Your task to perform on an android device: turn off data saver in the chrome app Image 0: 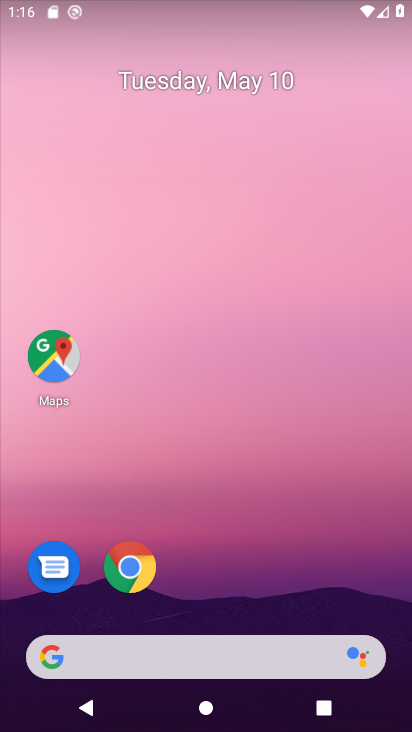
Step 0: drag from (192, 627) to (301, 143)
Your task to perform on an android device: turn off data saver in the chrome app Image 1: 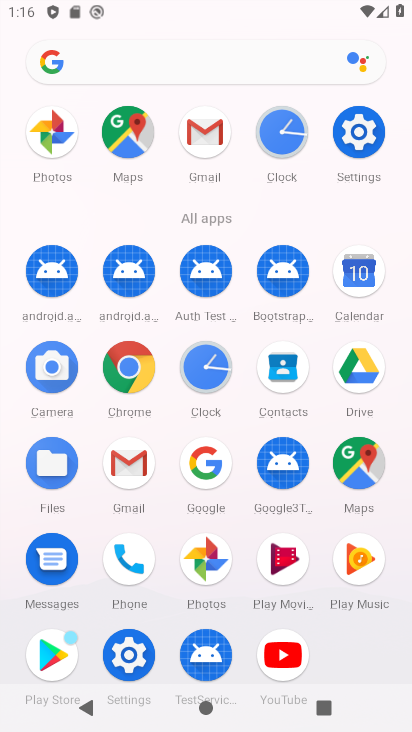
Step 1: click (123, 362)
Your task to perform on an android device: turn off data saver in the chrome app Image 2: 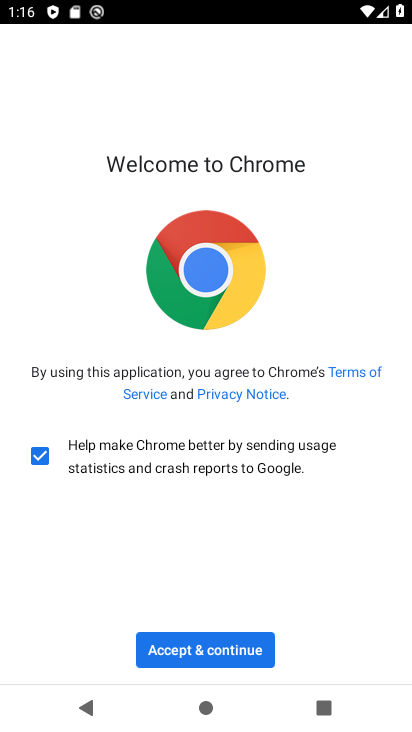
Step 2: click (232, 648)
Your task to perform on an android device: turn off data saver in the chrome app Image 3: 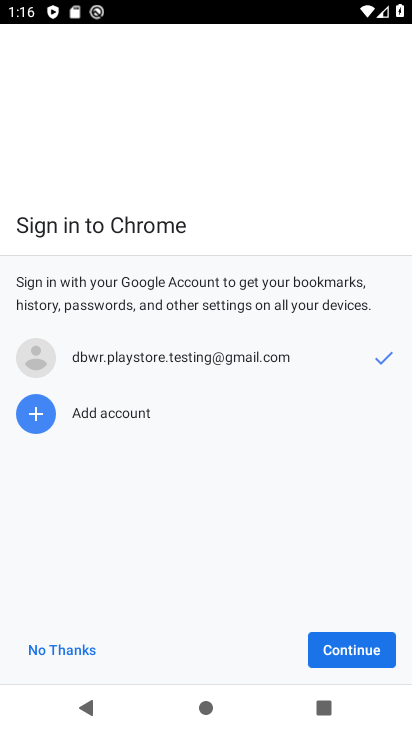
Step 3: click (346, 647)
Your task to perform on an android device: turn off data saver in the chrome app Image 4: 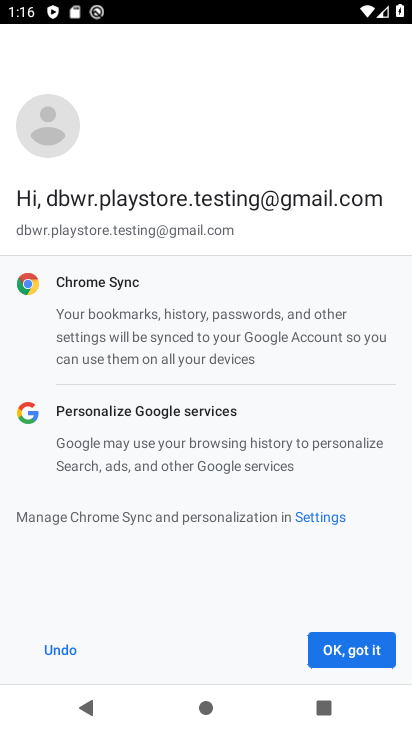
Step 4: click (381, 647)
Your task to perform on an android device: turn off data saver in the chrome app Image 5: 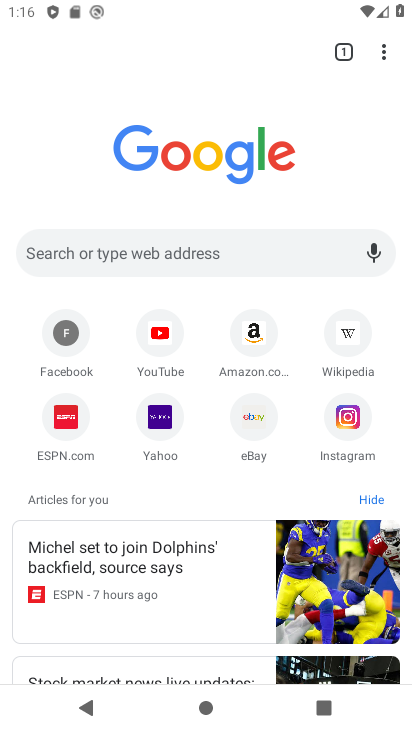
Step 5: drag from (402, 62) to (294, 441)
Your task to perform on an android device: turn off data saver in the chrome app Image 6: 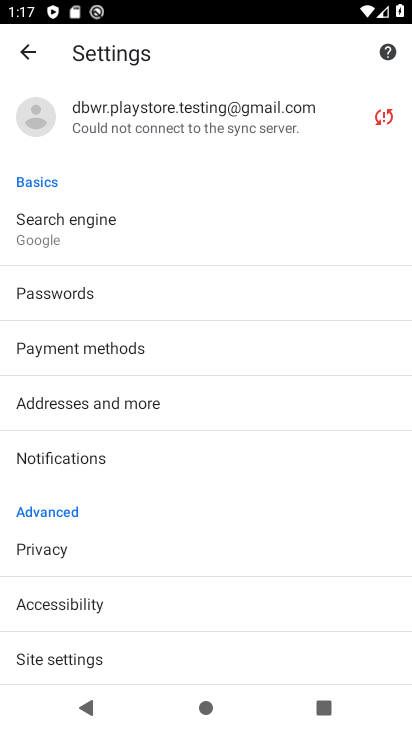
Step 6: drag from (124, 667) to (195, 375)
Your task to perform on an android device: turn off data saver in the chrome app Image 7: 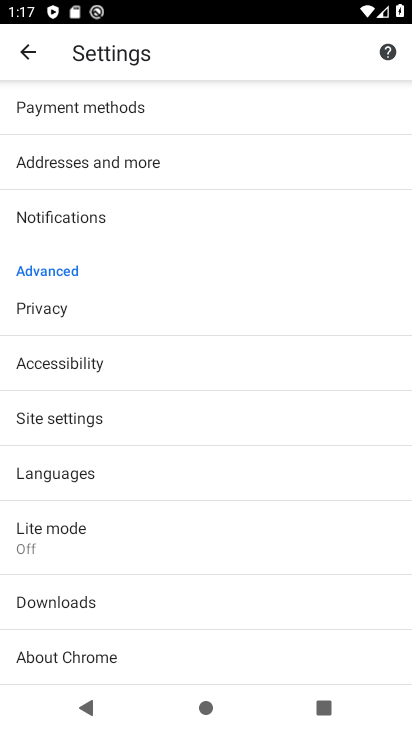
Step 7: click (124, 531)
Your task to perform on an android device: turn off data saver in the chrome app Image 8: 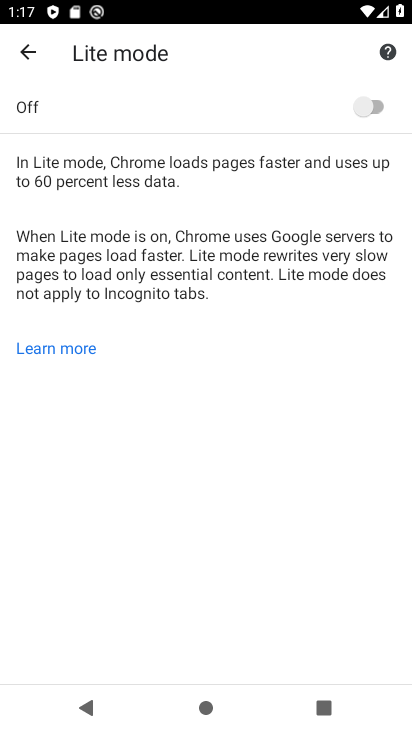
Step 8: task complete